Your task to perform on an android device: Add "bose quietcomfort 35" to the cart on walmart Image 0: 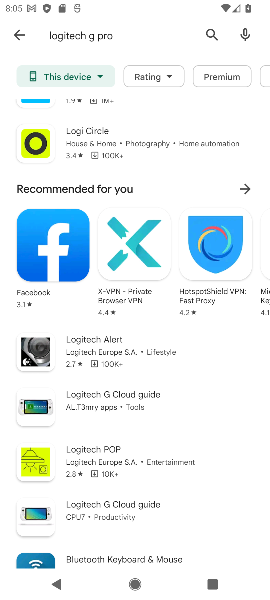
Step 0: press home button
Your task to perform on an android device: Add "bose quietcomfort 35" to the cart on walmart Image 1: 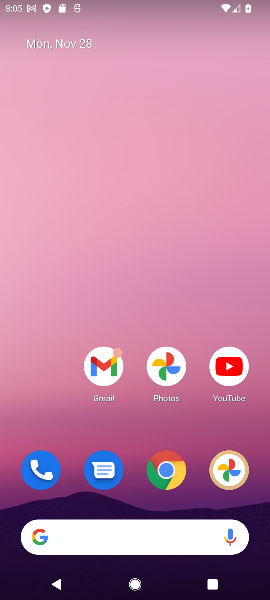
Step 1: drag from (125, 465) to (127, 53)
Your task to perform on an android device: Add "bose quietcomfort 35" to the cart on walmart Image 2: 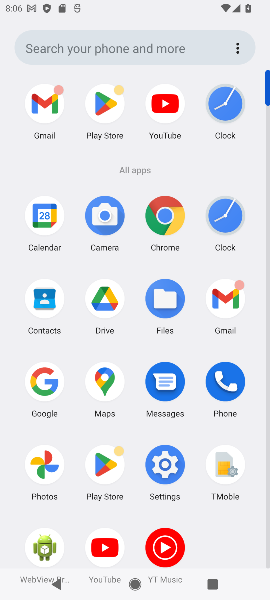
Step 2: click (46, 392)
Your task to perform on an android device: Add "bose quietcomfort 35" to the cart on walmart Image 3: 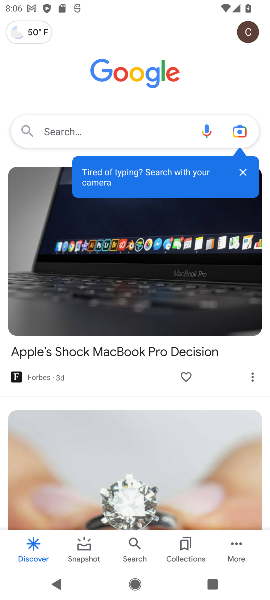
Step 3: click (141, 134)
Your task to perform on an android device: Add "bose quietcomfort 35" to the cart on walmart Image 4: 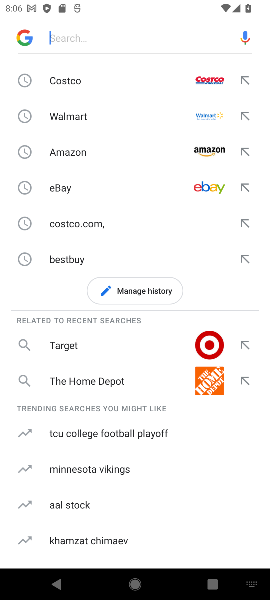
Step 4: click (68, 119)
Your task to perform on an android device: Add "bose quietcomfort 35" to the cart on walmart Image 5: 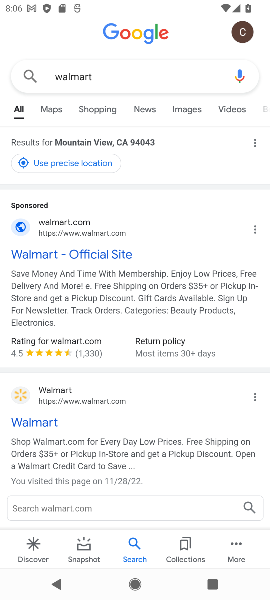
Step 5: click (42, 418)
Your task to perform on an android device: Add "bose quietcomfort 35" to the cart on walmart Image 6: 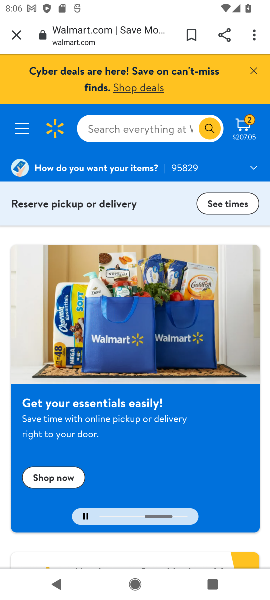
Step 6: click (131, 136)
Your task to perform on an android device: Add "bose quietcomfort 35" to the cart on walmart Image 7: 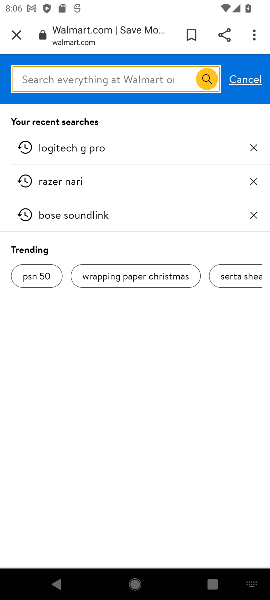
Step 7: type "bose quietcomfort 35"
Your task to perform on an android device: Add "bose quietcomfort 35" to the cart on walmart Image 8: 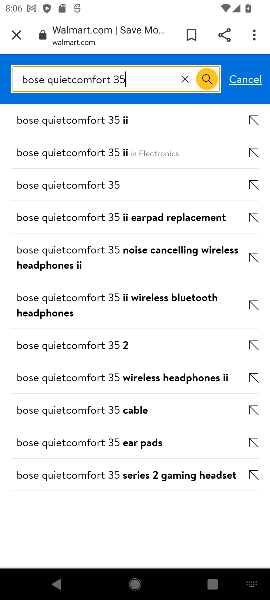
Step 8: click (72, 122)
Your task to perform on an android device: Add "bose quietcomfort 35" to the cart on walmart Image 9: 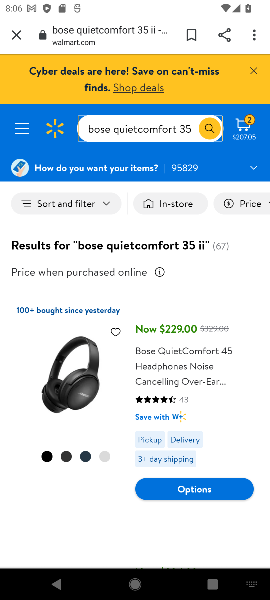
Step 9: click (190, 486)
Your task to perform on an android device: Add "bose quietcomfort 35" to the cart on walmart Image 10: 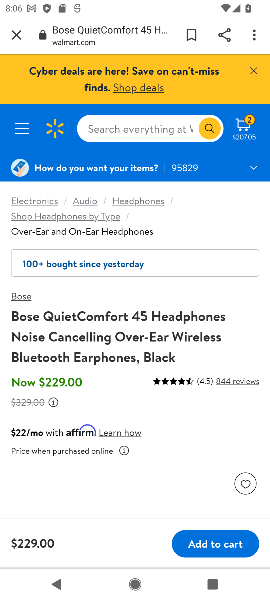
Step 10: click (203, 544)
Your task to perform on an android device: Add "bose quietcomfort 35" to the cart on walmart Image 11: 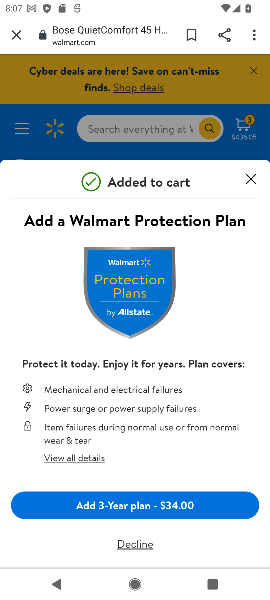
Step 11: task complete